Your task to perform on an android device: delete location history Image 0: 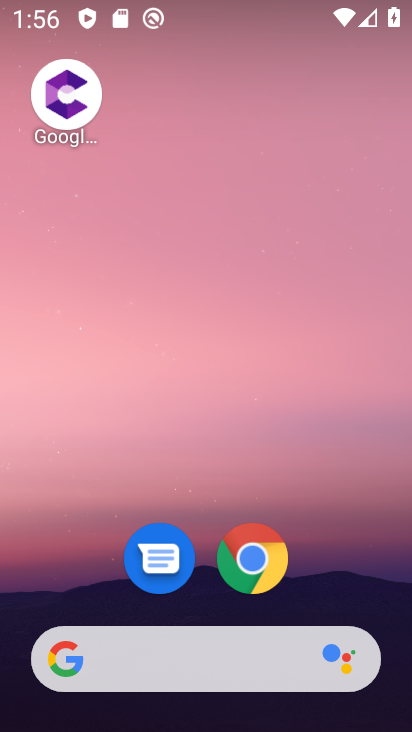
Step 0: drag from (116, 588) to (193, 0)
Your task to perform on an android device: delete location history Image 1: 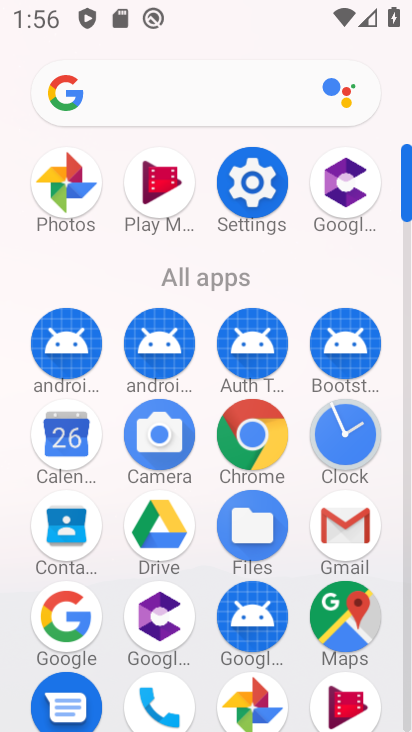
Step 1: click (346, 644)
Your task to perform on an android device: delete location history Image 2: 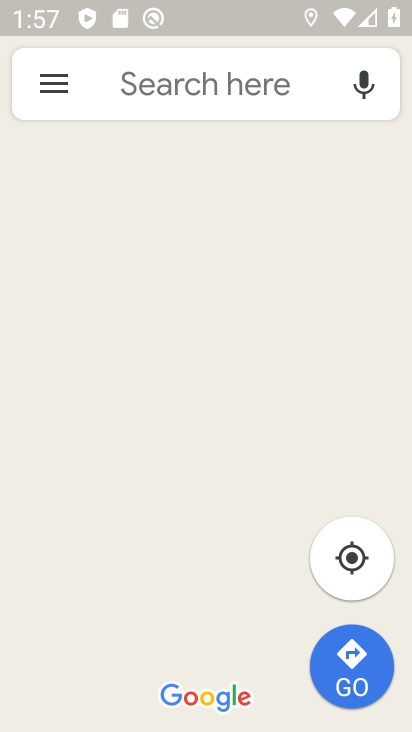
Step 2: click (63, 85)
Your task to perform on an android device: delete location history Image 3: 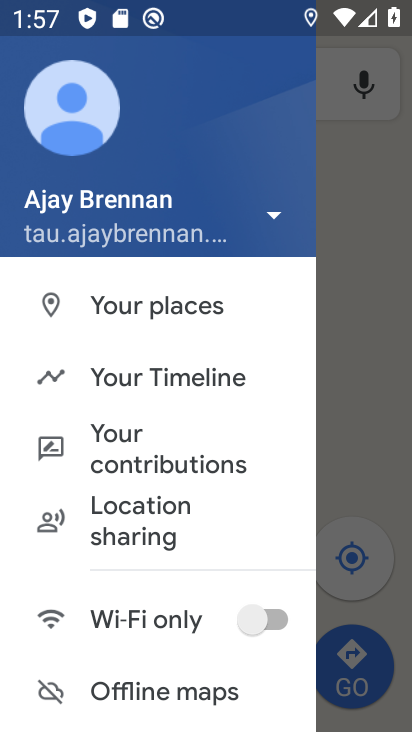
Step 3: click (149, 369)
Your task to perform on an android device: delete location history Image 4: 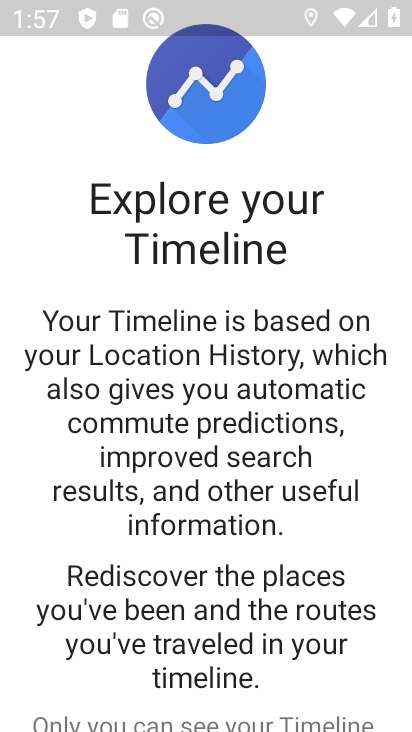
Step 4: drag from (200, 592) to (247, 6)
Your task to perform on an android device: delete location history Image 5: 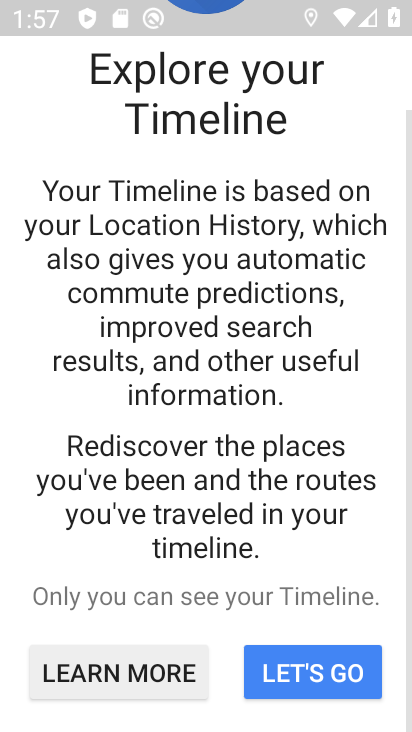
Step 5: click (291, 668)
Your task to perform on an android device: delete location history Image 6: 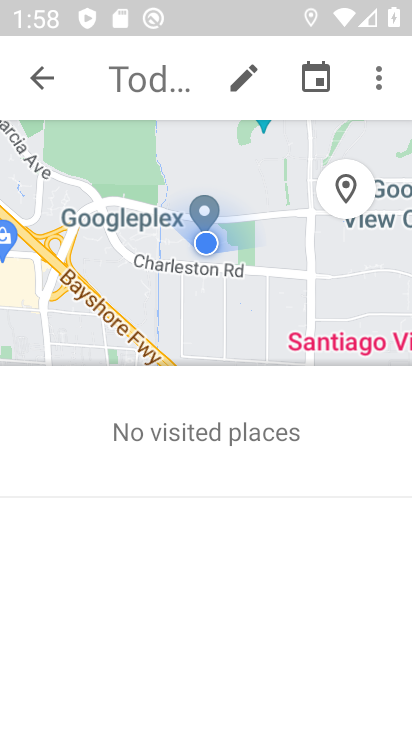
Step 6: click (378, 71)
Your task to perform on an android device: delete location history Image 7: 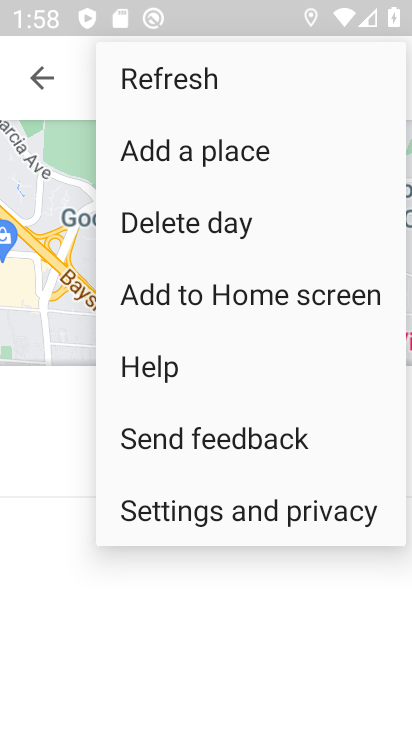
Step 7: click (195, 491)
Your task to perform on an android device: delete location history Image 8: 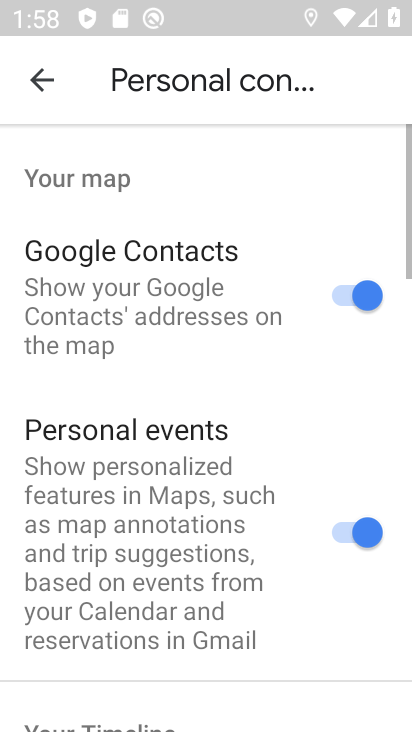
Step 8: drag from (154, 536) to (271, 13)
Your task to perform on an android device: delete location history Image 9: 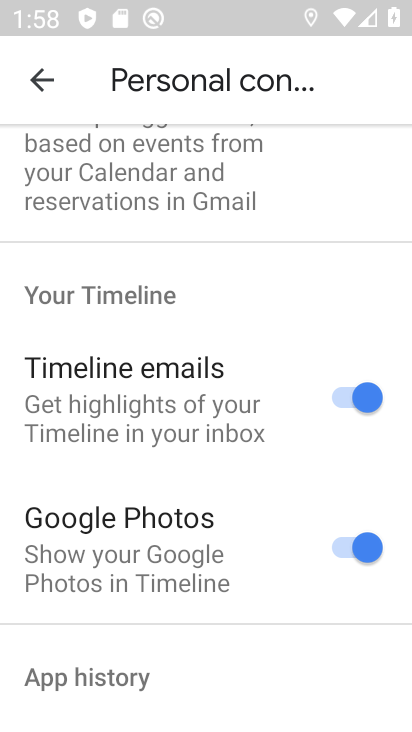
Step 9: drag from (150, 620) to (260, 19)
Your task to perform on an android device: delete location history Image 10: 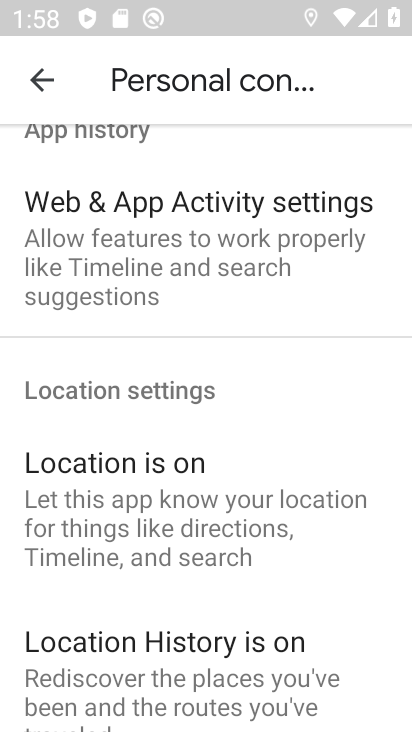
Step 10: drag from (214, 646) to (285, 45)
Your task to perform on an android device: delete location history Image 11: 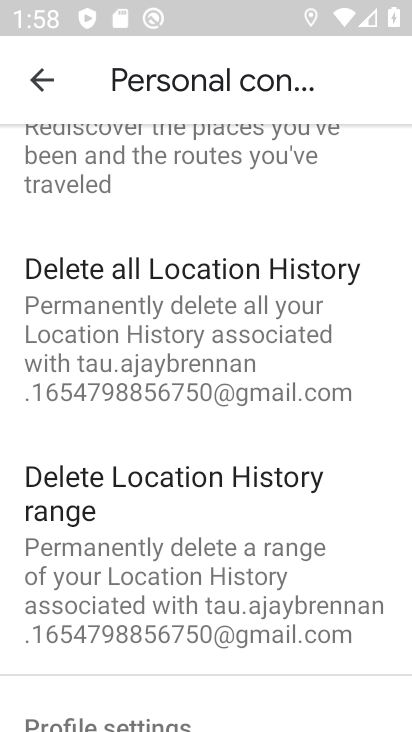
Step 11: click (197, 296)
Your task to perform on an android device: delete location history Image 12: 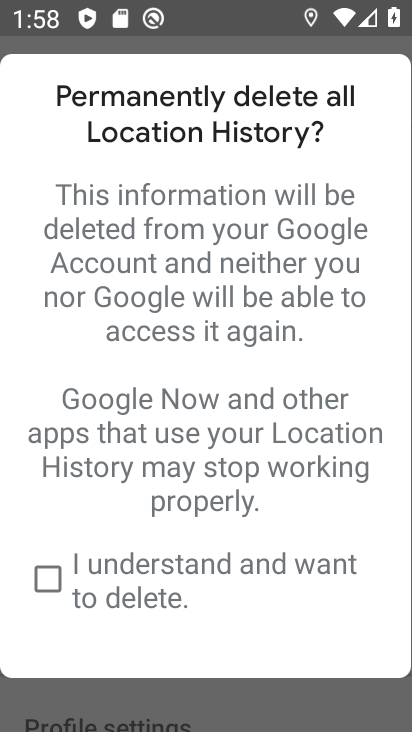
Step 12: click (59, 577)
Your task to perform on an android device: delete location history Image 13: 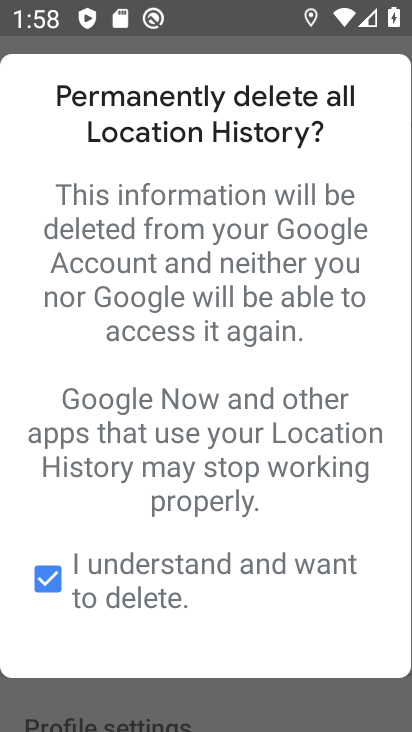
Step 13: task complete